Your task to perform on an android device: star an email in the gmail app Image 0: 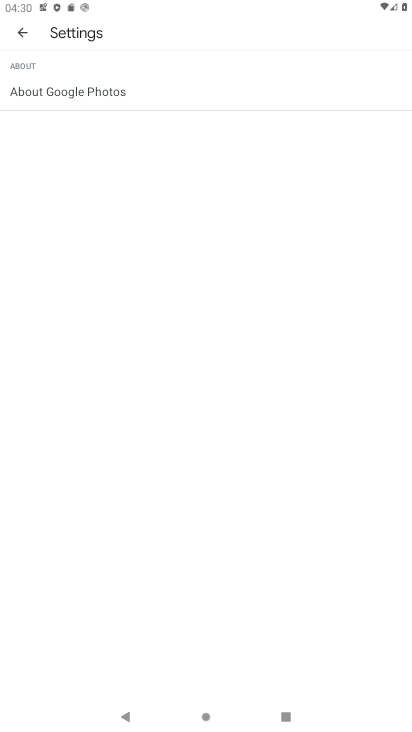
Step 0: press home button
Your task to perform on an android device: star an email in the gmail app Image 1: 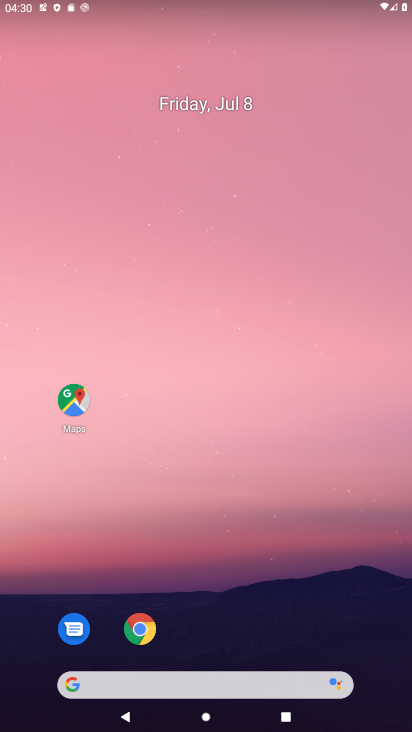
Step 1: drag from (248, 709) to (256, 185)
Your task to perform on an android device: star an email in the gmail app Image 2: 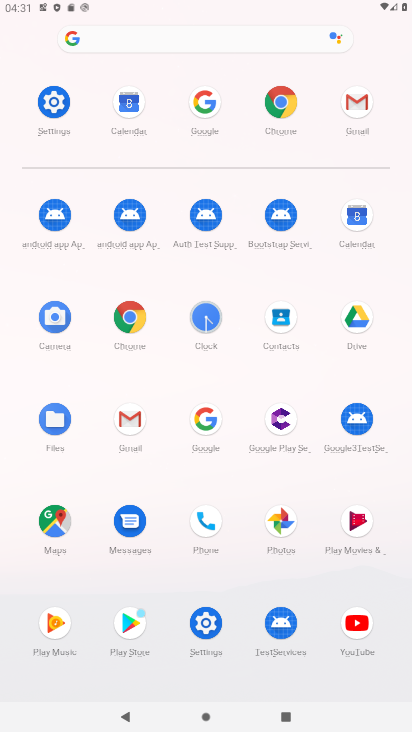
Step 2: click (127, 417)
Your task to perform on an android device: star an email in the gmail app Image 3: 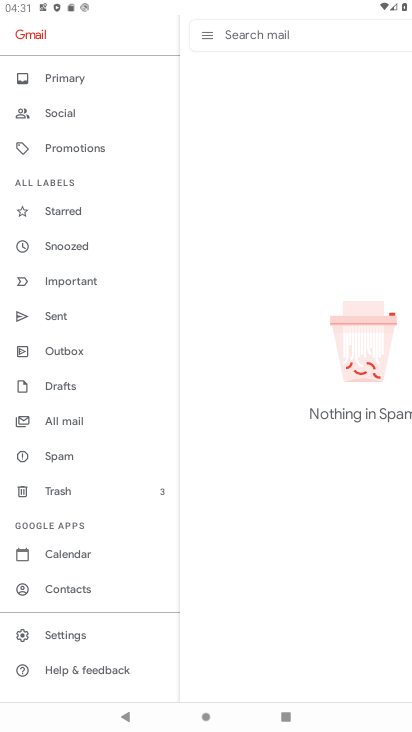
Step 3: click (71, 70)
Your task to perform on an android device: star an email in the gmail app Image 4: 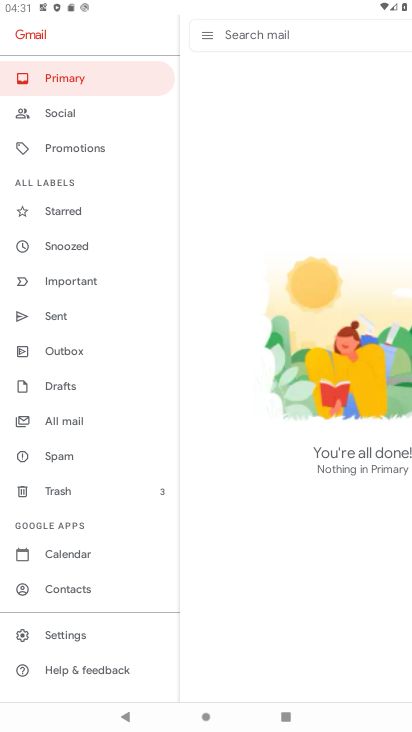
Step 4: task complete